Your task to perform on an android device: clear history in the chrome app Image 0: 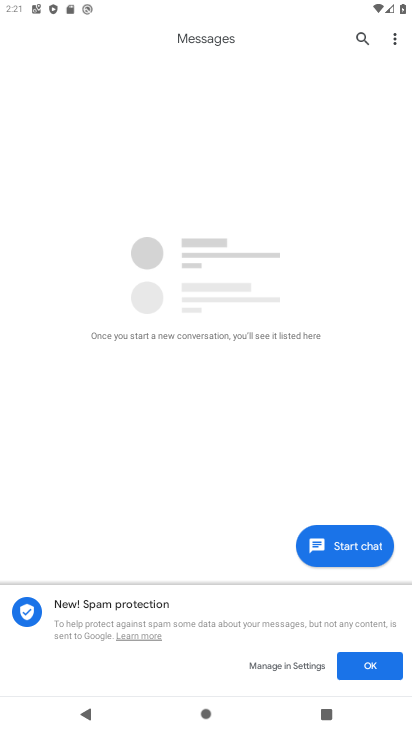
Step 0: drag from (313, 568) to (405, 209)
Your task to perform on an android device: clear history in the chrome app Image 1: 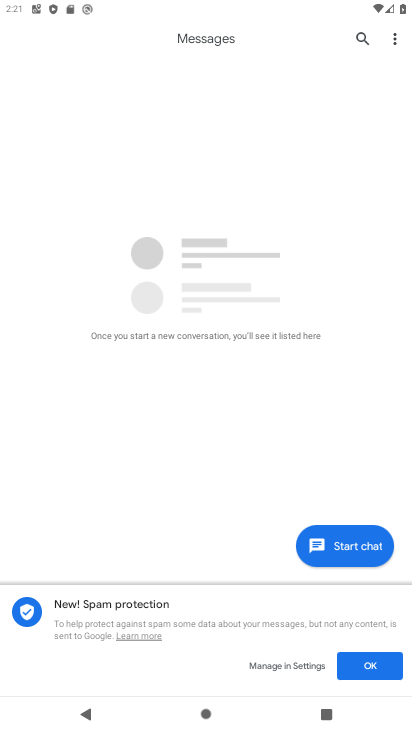
Step 1: press home button
Your task to perform on an android device: clear history in the chrome app Image 2: 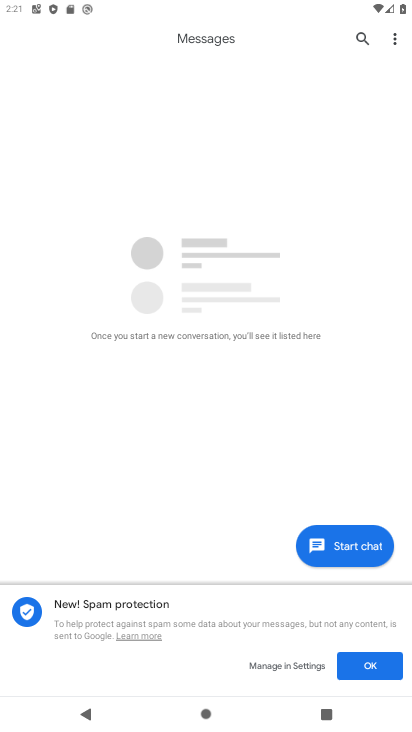
Step 2: drag from (405, 209) to (397, 517)
Your task to perform on an android device: clear history in the chrome app Image 3: 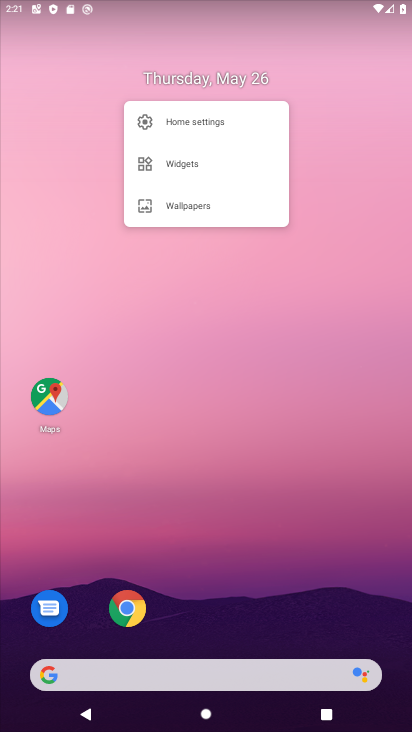
Step 3: drag from (292, 593) to (275, 56)
Your task to perform on an android device: clear history in the chrome app Image 4: 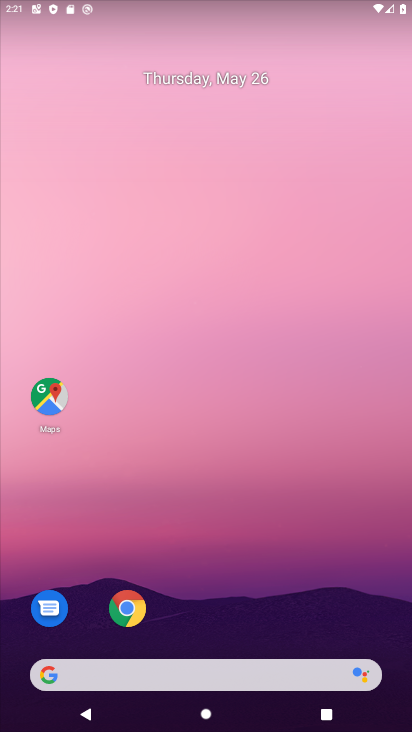
Step 4: drag from (284, 428) to (304, 30)
Your task to perform on an android device: clear history in the chrome app Image 5: 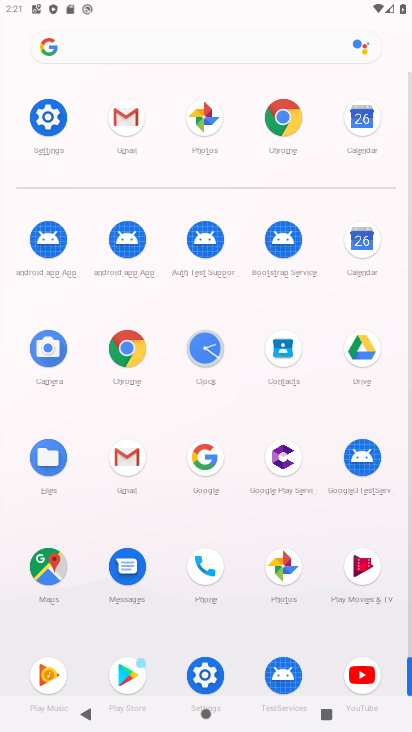
Step 5: click (48, 112)
Your task to perform on an android device: clear history in the chrome app Image 6: 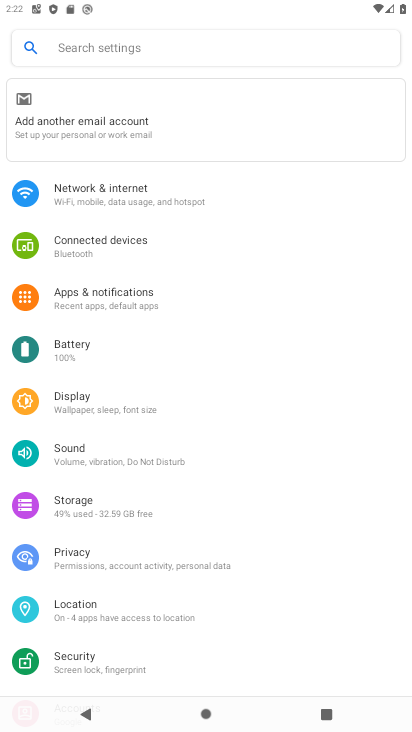
Step 6: press home button
Your task to perform on an android device: clear history in the chrome app Image 7: 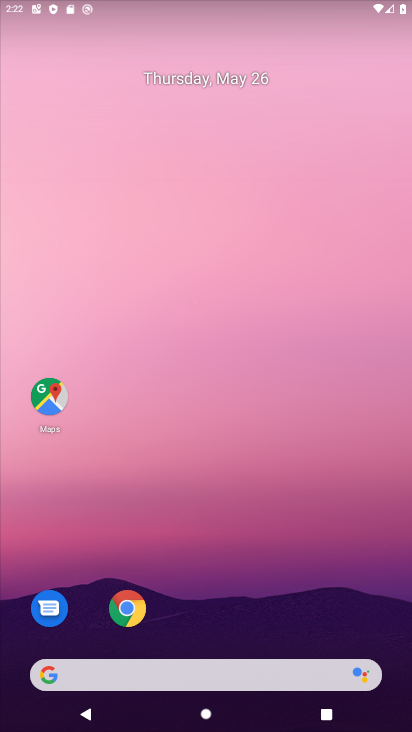
Step 7: drag from (388, 487) to (383, 22)
Your task to perform on an android device: clear history in the chrome app Image 8: 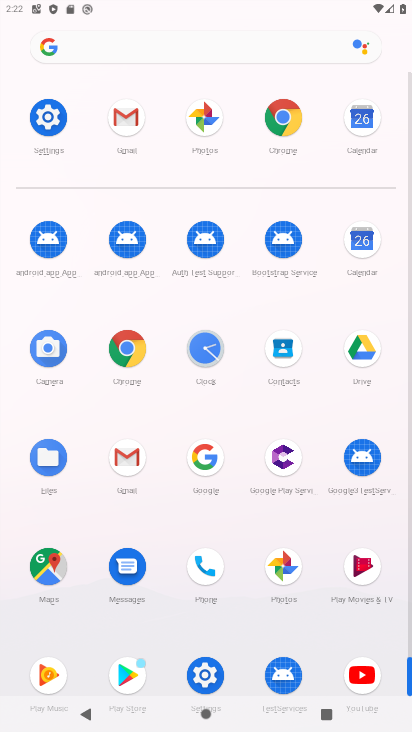
Step 8: click (283, 122)
Your task to perform on an android device: clear history in the chrome app Image 9: 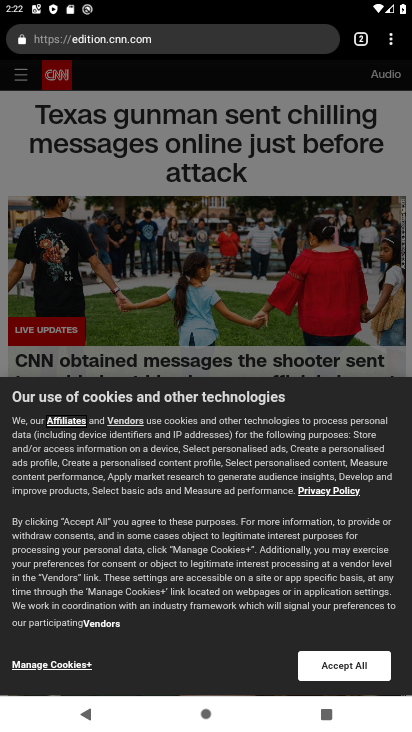
Step 9: drag from (392, 43) to (259, 233)
Your task to perform on an android device: clear history in the chrome app Image 10: 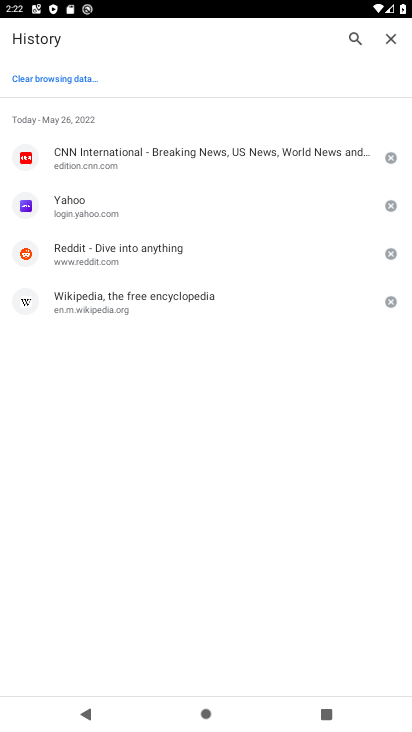
Step 10: click (48, 75)
Your task to perform on an android device: clear history in the chrome app Image 11: 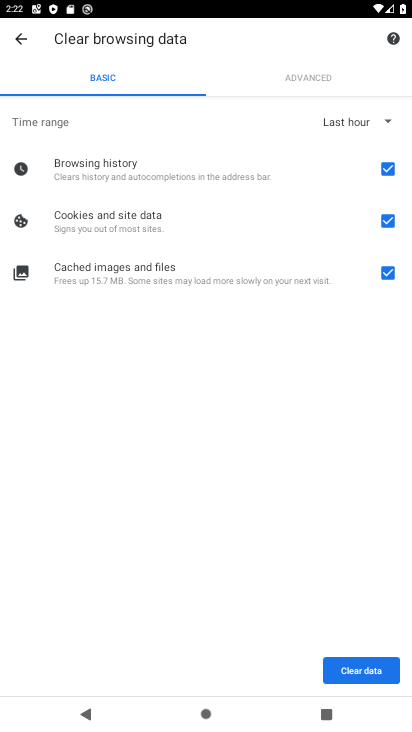
Step 11: click (363, 670)
Your task to perform on an android device: clear history in the chrome app Image 12: 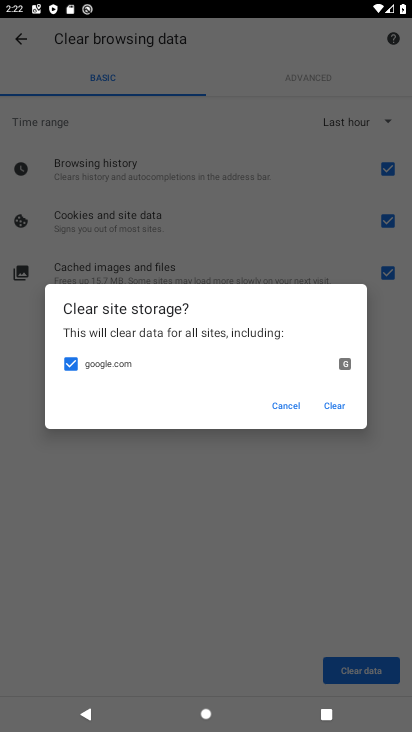
Step 12: click (332, 399)
Your task to perform on an android device: clear history in the chrome app Image 13: 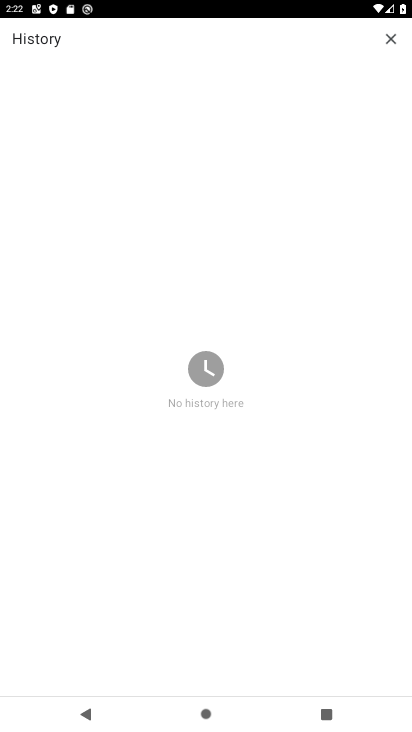
Step 13: task complete